Your task to perform on an android device: Open Android settings Image 0: 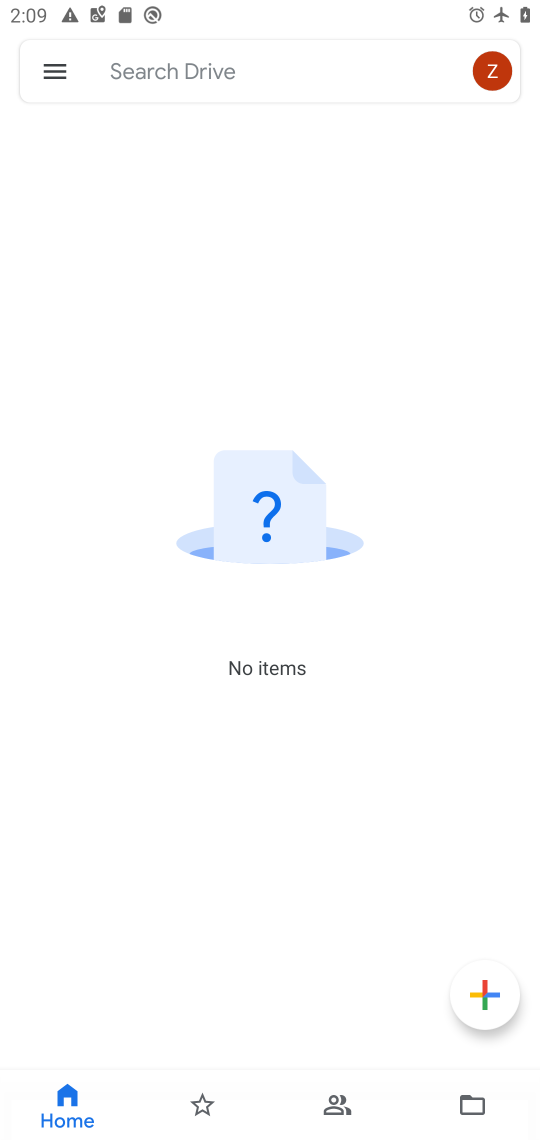
Step 0: press home button
Your task to perform on an android device: Open Android settings Image 1: 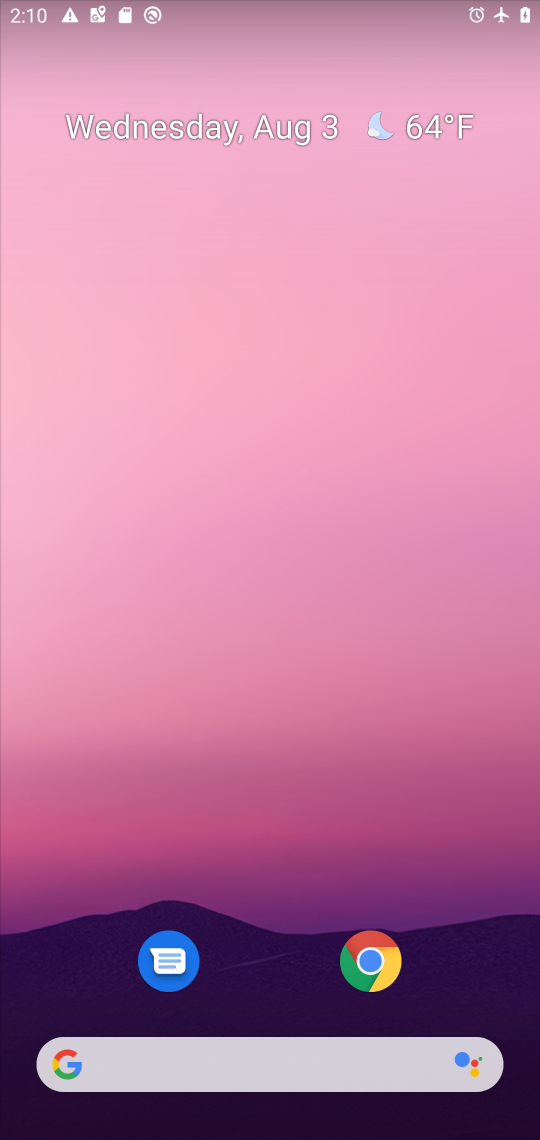
Step 1: drag from (278, 968) to (296, 12)
Your task to perform on an android device: Open Android settings Image 2: 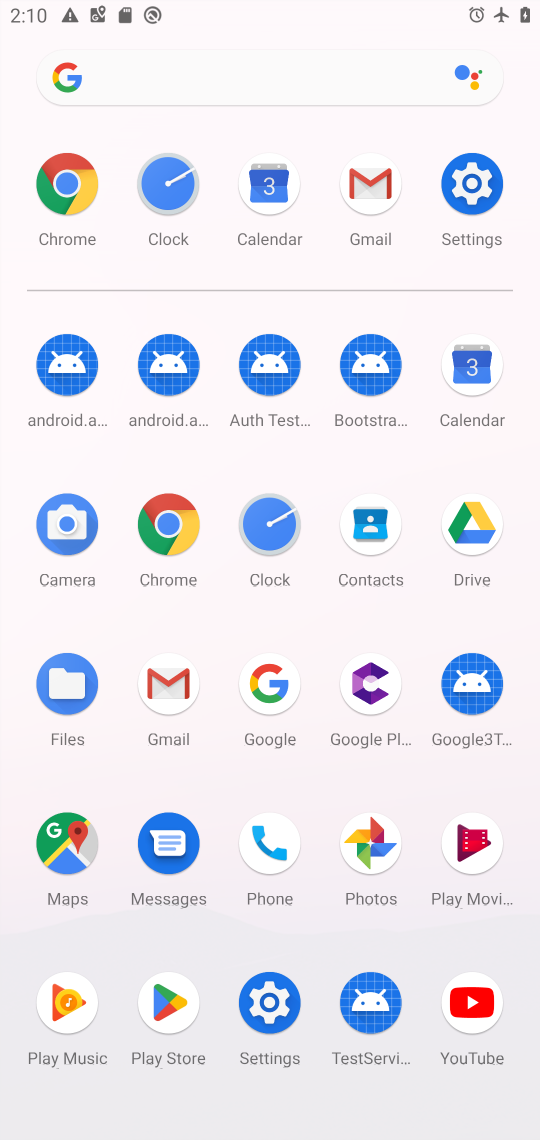
Step 2: click (463, 192)
Your task to perform on an android device: Open Android settings Image 3: 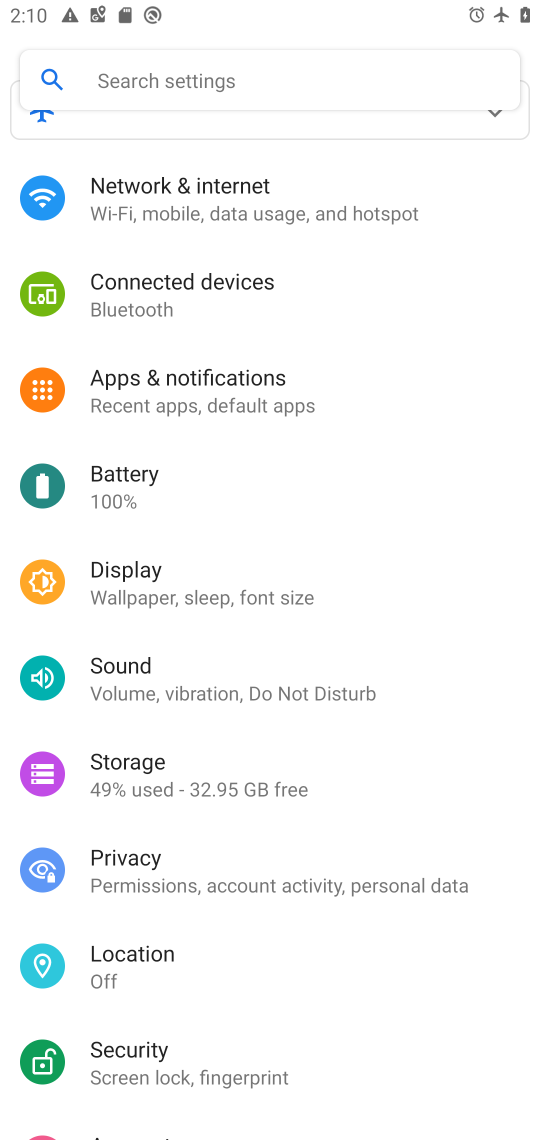
Step 3: task complete